Your task to perform on an android device: Search for seafood restaurants on Google Maps Image 0: 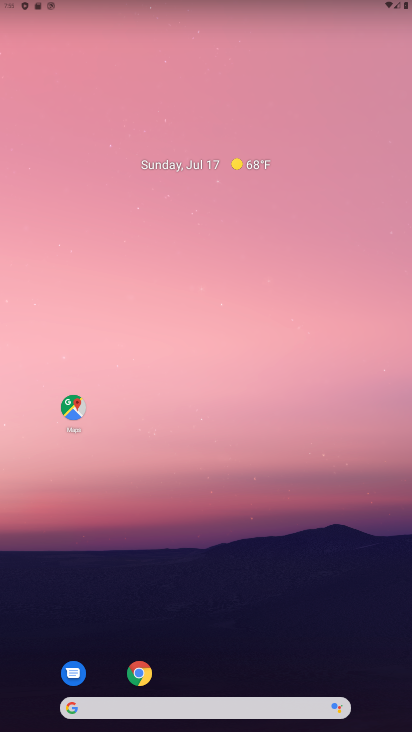
Step 0: drag from (211, 358) to (95, 0)
Your task to perform on an android device: Search for seafood restaurants on Google Maps Image 1: 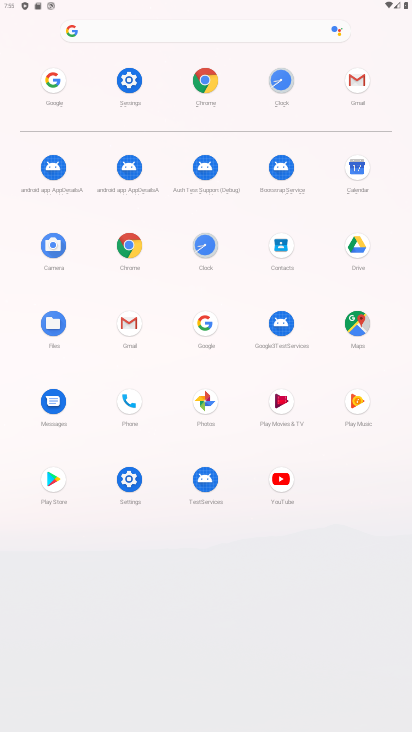
Step 1: click (363, 330)
Your task to perform on an android device: Search for seafood restaurants on Google Maps Image 2: 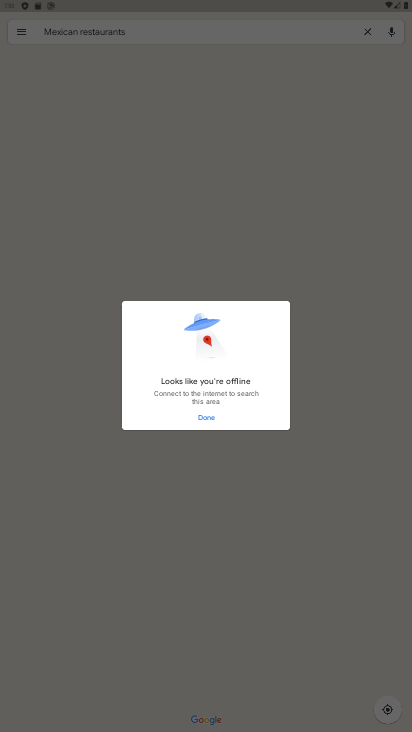
Step 2: click (246, 254)
Your task to perform on an android device: Search for seafood restaurants on Google Maps Image 3: 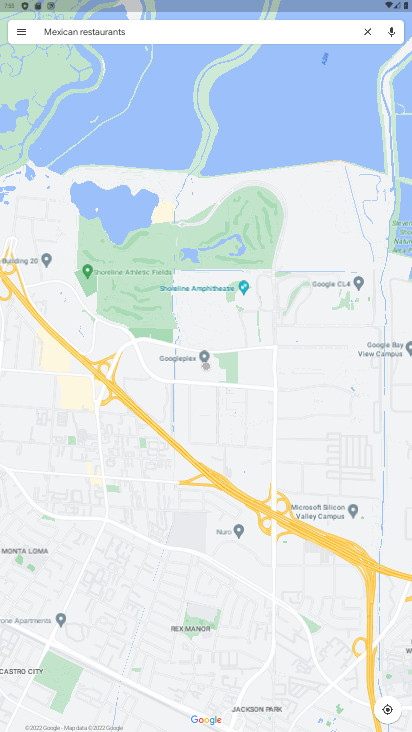
Step 3: click (214, 19)
Your task to perform on an android device: Search for seafood restaurants on Google Maps Image 4: 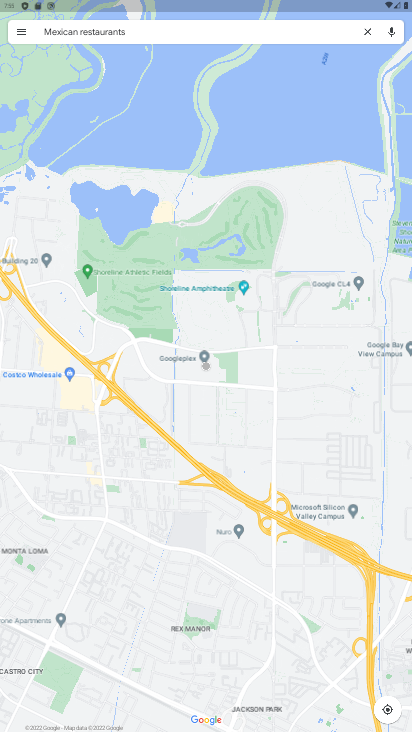
Step 4: click (241, 30)
Your task to perform on an android device: Search for seafood restaurants on Google Maps Image 5: 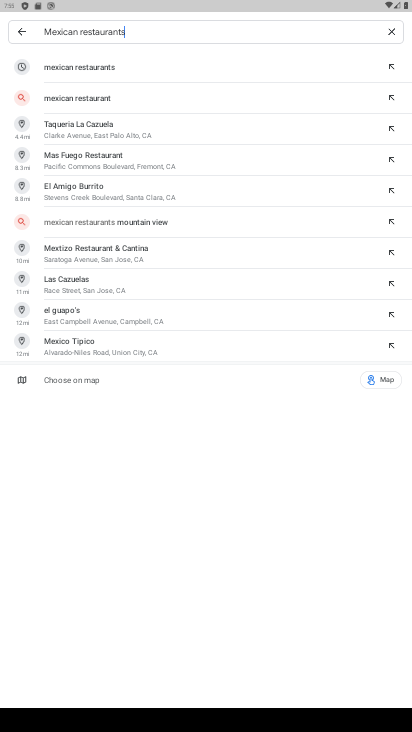
Step 5: click (389, 32)
Your task to perform on an android device: Search for seafood restaurants on Google Maps Image 6: 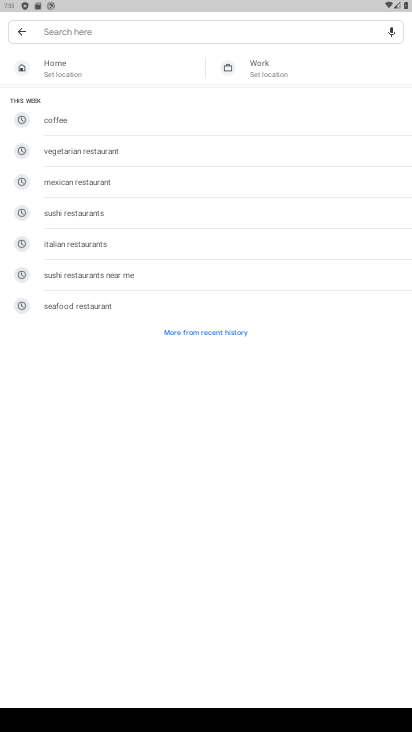
Step 6: click (74, 309)
Your task to perform on an android device: Search for seafood restaurants on Google Maps Image 7: 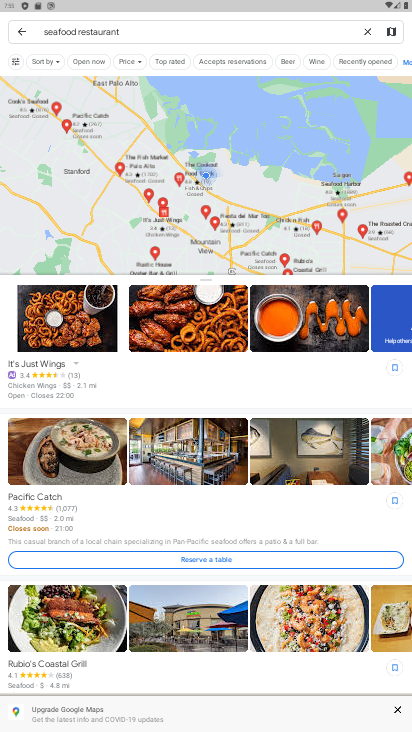
Step 7: task complete